Your task to perform on an android device: open app "Upside-Cash back on gas & food" (install if not already installed) and go to login screen Image 0: 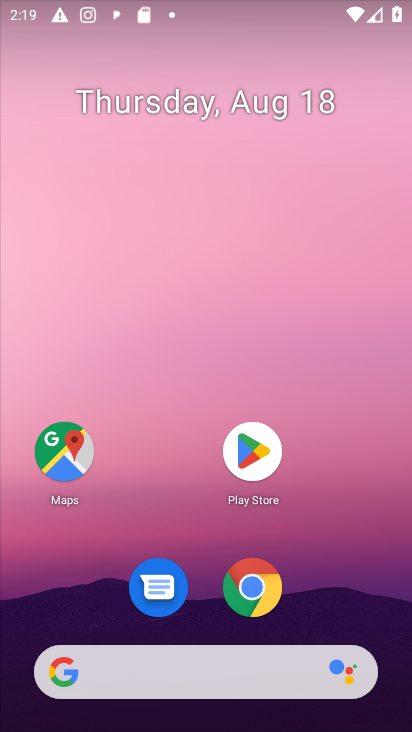
Step 0: click (255, 455)
Your task to perform on an android device: open app "Upside-Cash back on gas & food" (install if not already installed) and go to login screen Image 1: 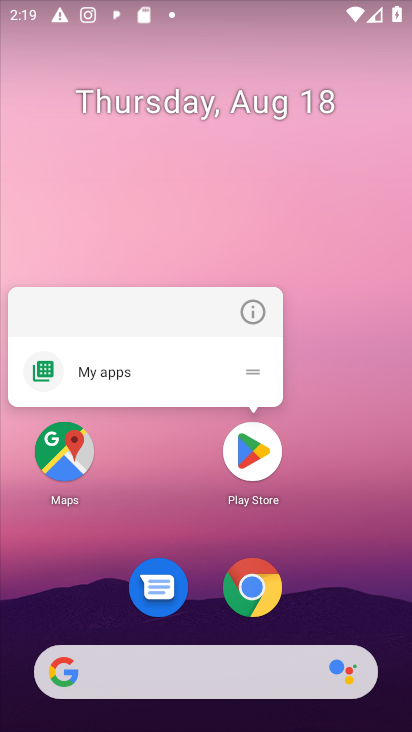
Step 1: click (255, 454)
Your task to perform on an android device: open app "Upside-Cash back on gas & food" (install if not already installed) and go to login screen Image 2: 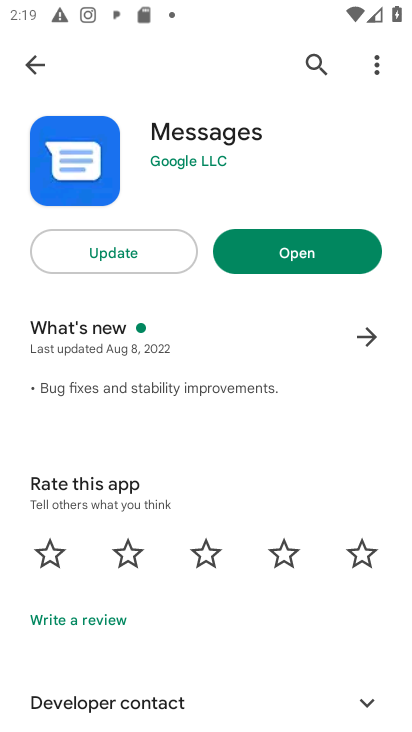
Step 2: click (313, 59)
Your task to perform on an android device: open app "Upside-Cash back on gas & food" (install if not already installed) and go to login screen Image 3: 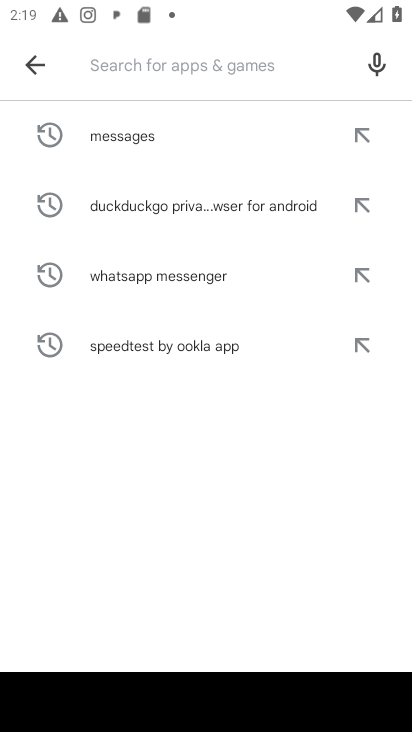
Step 3: type "Upside-Cash back on gas & food"
Your task to perform on an android device: open app "Upside-Cash back on gas & food" (install if not already installed) and go to login screen Image 4: 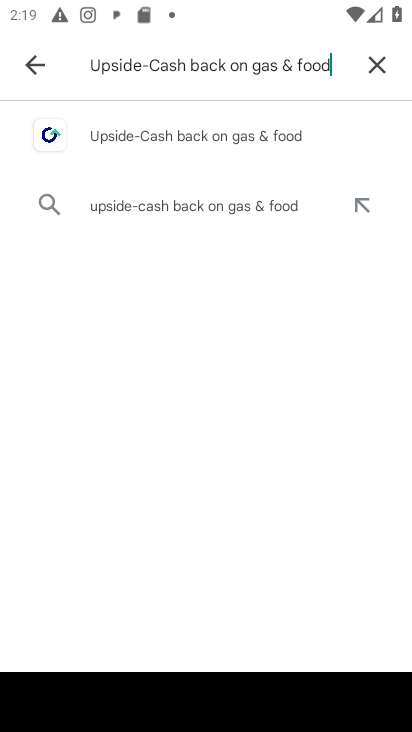
Step 4: click (231, 146)
Your task to perform on an android device: open app "Upside-Cash back on gas & food" (install if not already installed) and go to login screen Image 5: 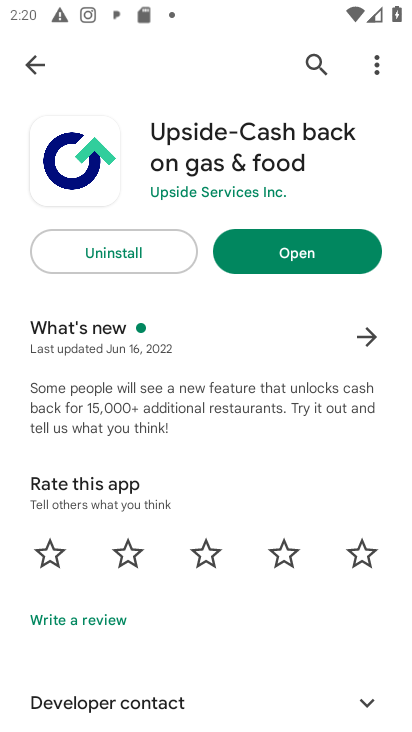
Step 5: click (316, 256)
Your task to perform on an android device: open app "Upside-Cash back on gas & food" (install if not already installed) and go to login screen Image 6: 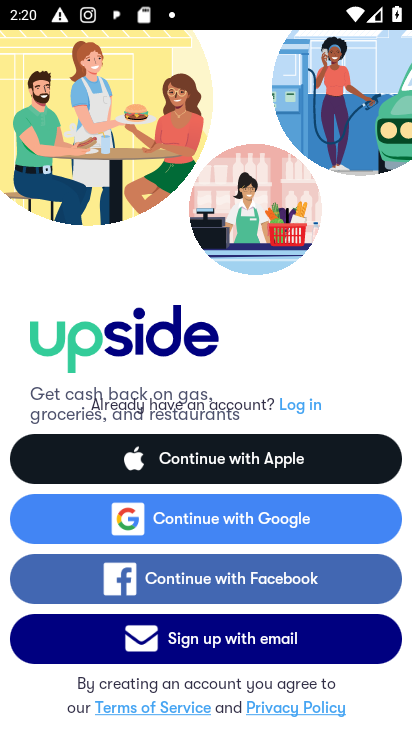
Step 6: task complete